Your task to perform on an android device: install app "Flipkart Online Shopping App" Image 0: 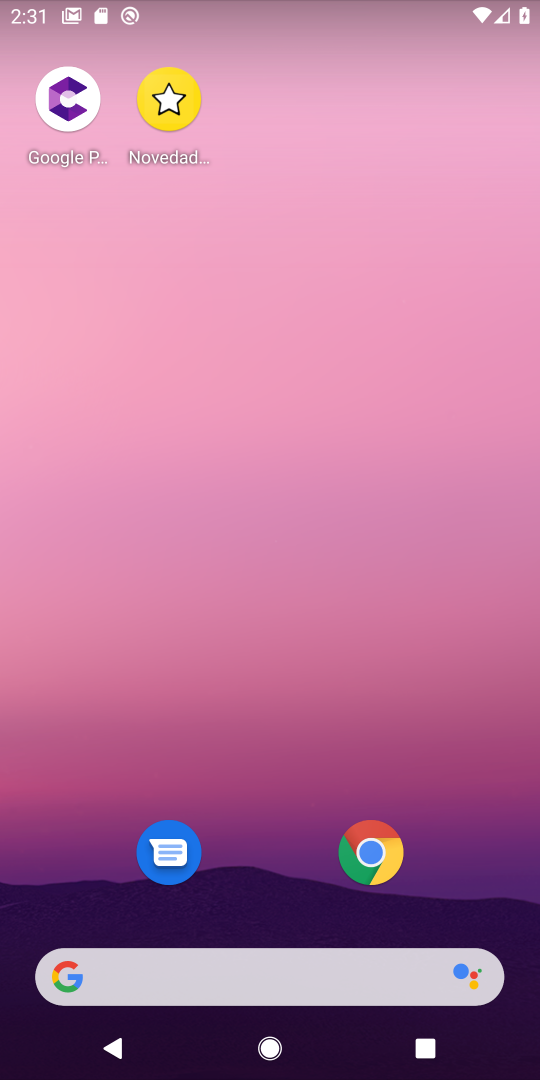
Step 0: drag from (275, 863) to (216, 115)
Your task to perform on an android device: install app "Flipkart Online Shopping App" Image 1: 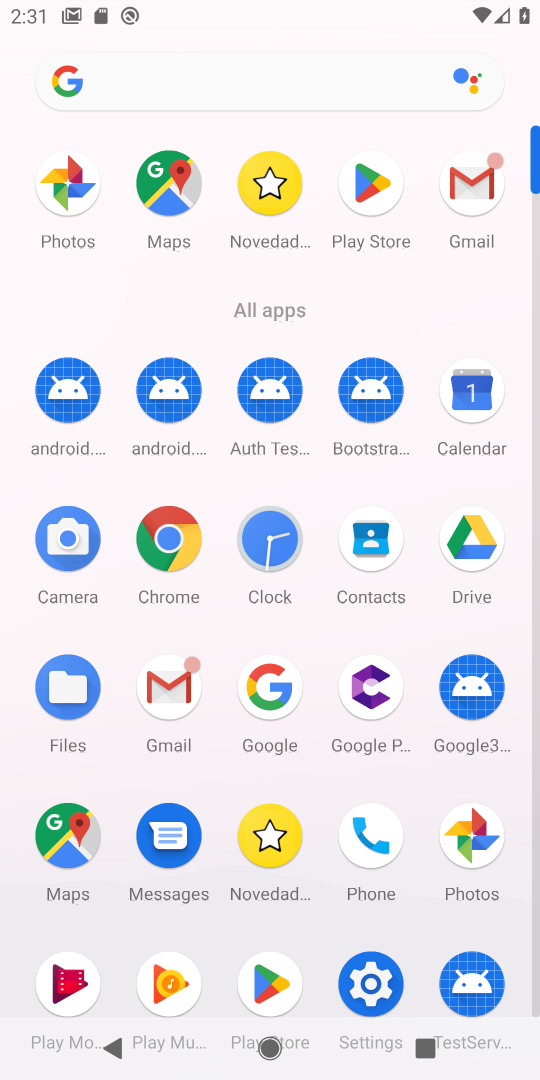
Step 1: click (385, 174)
Your task to perform on an android device: install app "Flipkart Online Shopping App" Image 2: 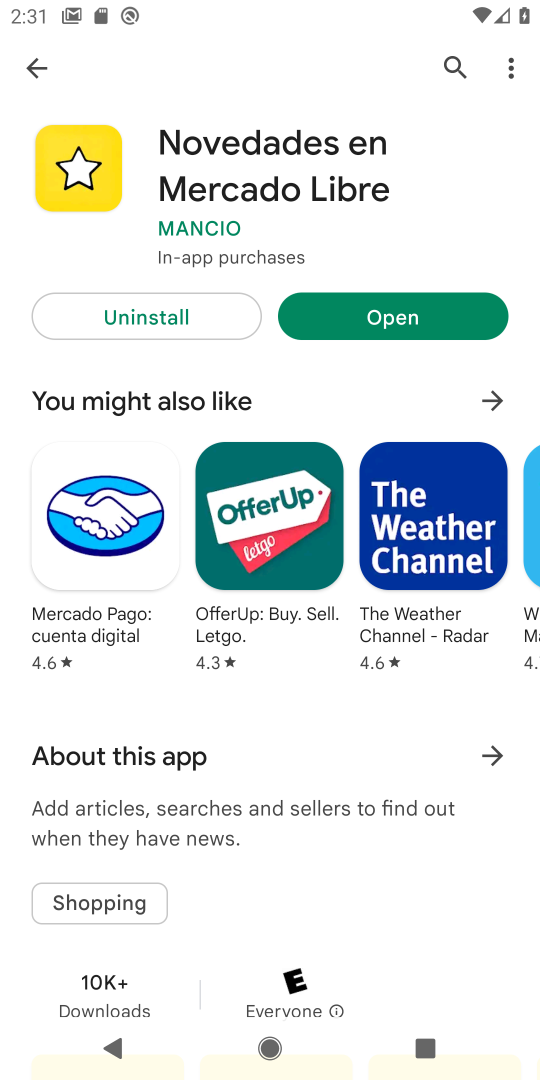
Step 2: click (446, 65)
Your task to perform on an android device: install app "Flipkart Online Shopping App" Image 3: 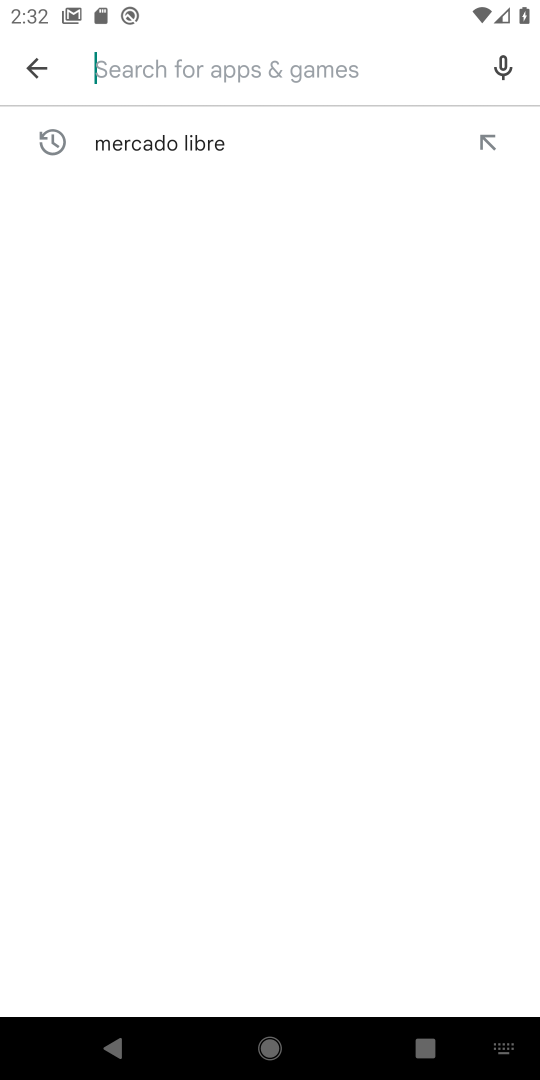
Step 3: type "flipkart online shopping app"
Your task to perform on an android device: install app "Flipkart Online Shopping App" Image 4: 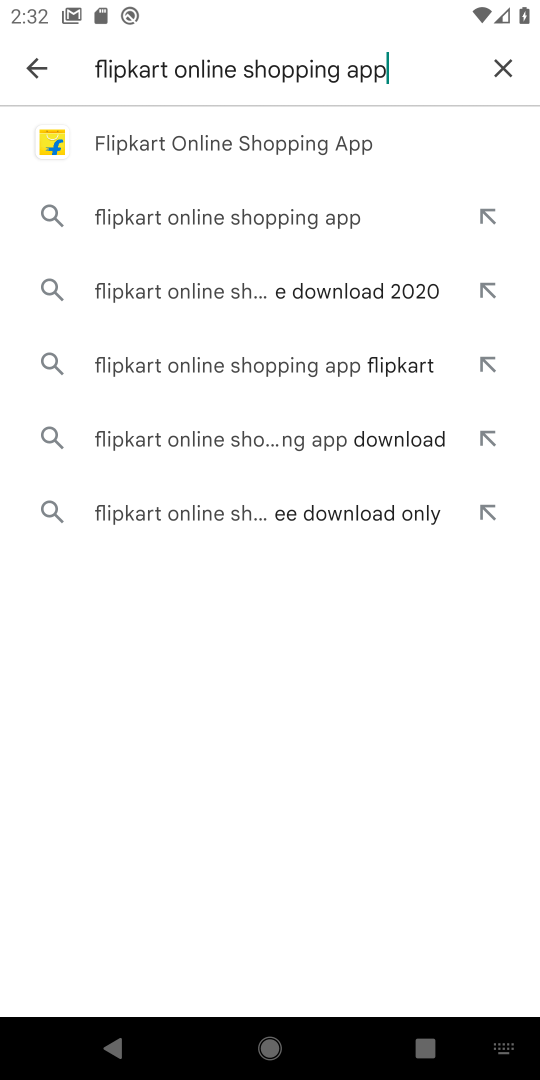
Step 4: click (296, 128)
Your task to perform on an android device: install app "Flipkart Online Shopping App" Image 5: 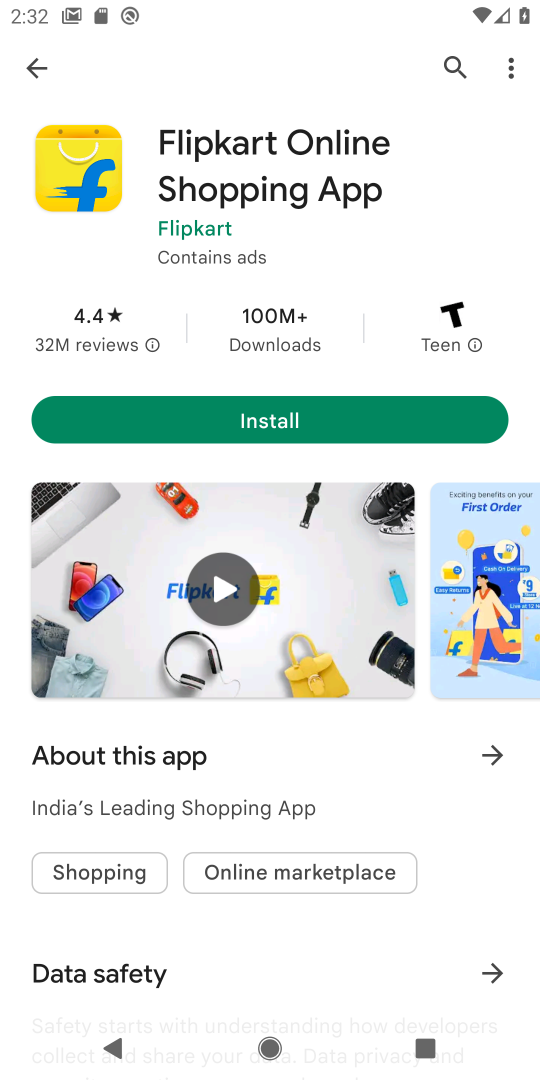
Step 5: click (207, 407)
Your task to perform on an android device: install app "Flipkart Online Shopping App" Image 6: 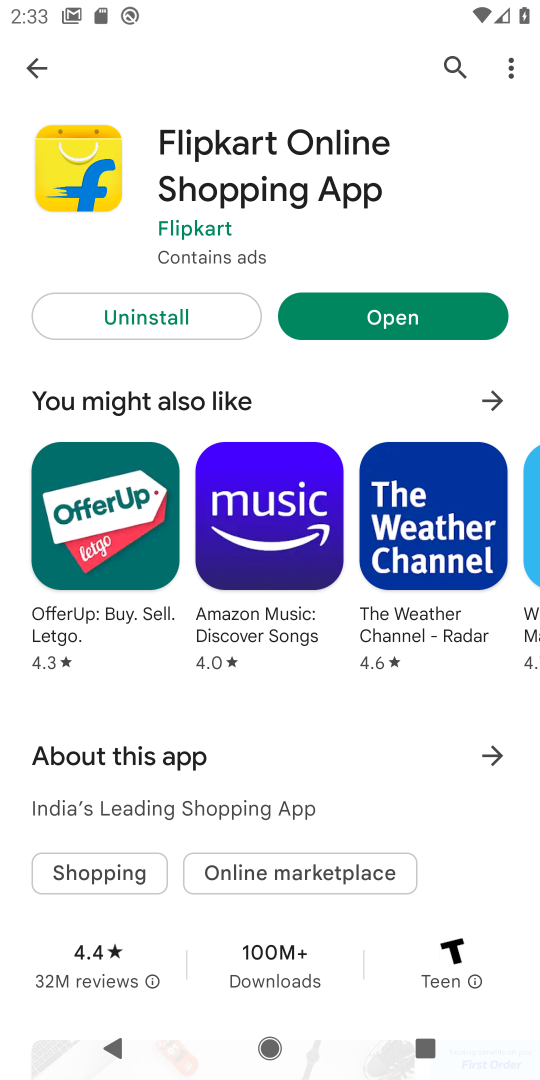
Step 6: task complete